Your task to perform on an android device: check data usage Image 0: 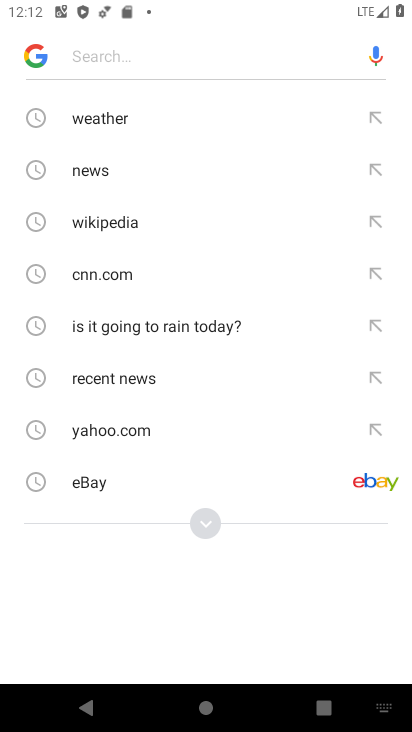
Step 0: press home button
Your task to perform on an android device: check data usage Image 1: 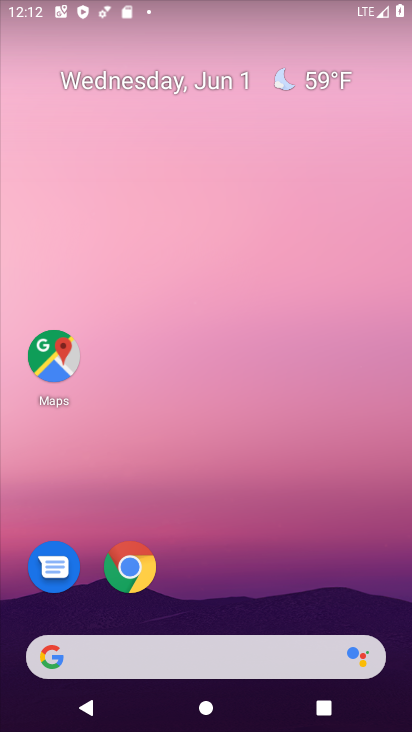
Step 1: drag from (215, 599) to (123, 94)
Your task to perform on an android device: check data usage Image 2: 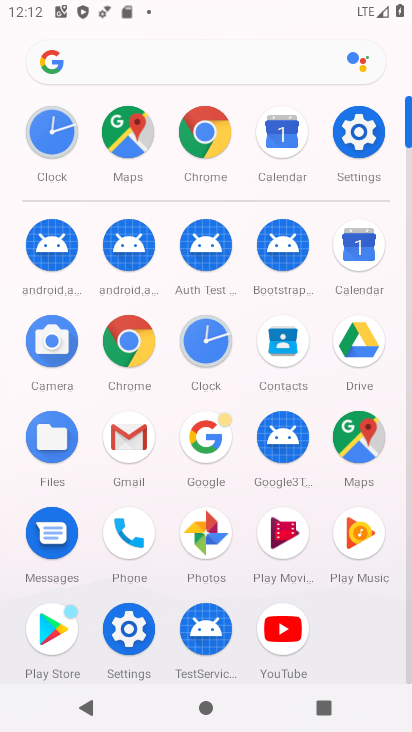
Step 2: click (358, 130)
Your task to perform on an android device: check data usage Image 3: 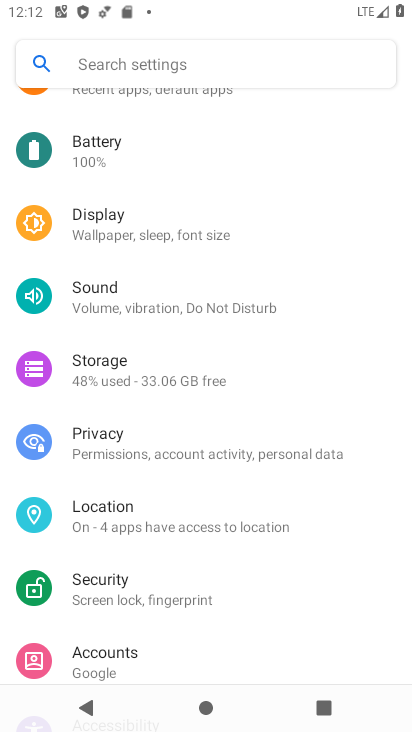
Step 3: drag from (210, 148) to (205, 549)
Your task to perform on an android device: check data usage Image 4: 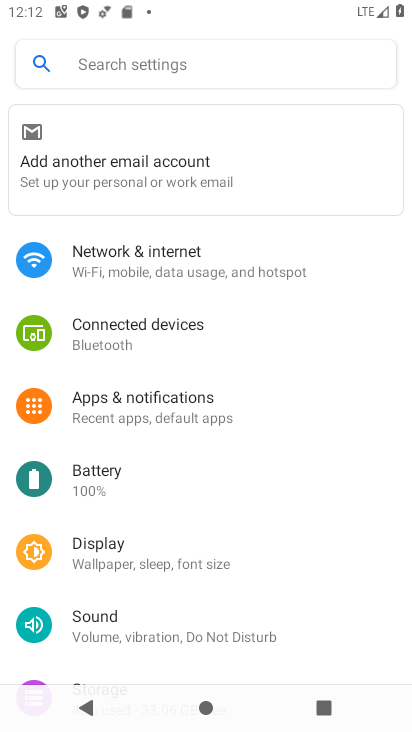
Step 4: click (179, 279)
Your task to perform on an android device: check data usage Image 5: 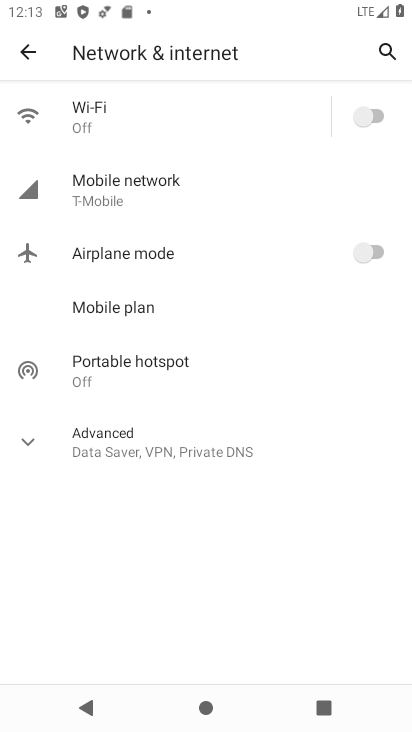
Step 5: click (143, 103)
Your task to perform on an android device: check data usage Image 6: 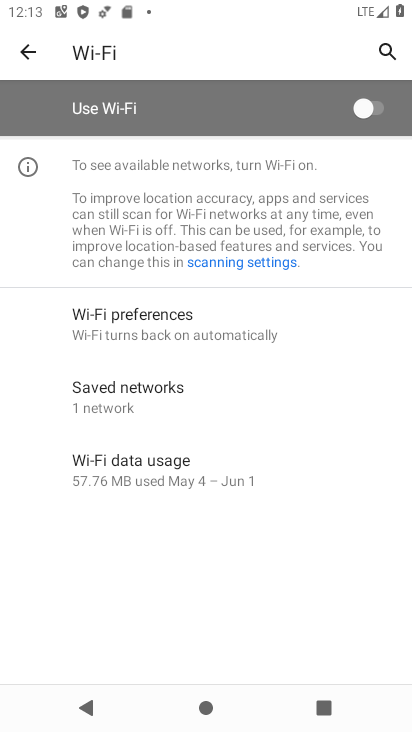
Step 6: click (174, 484)
Your task to perform on an android device: check data usage Image 7: 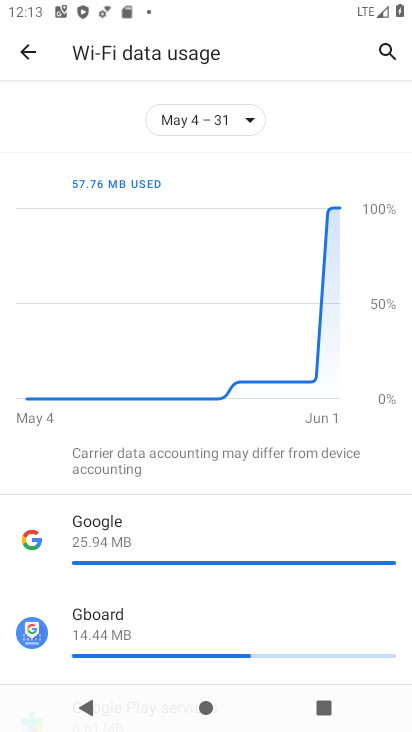
Step 7: task complete